Your task to perform on an android device: open app "The Home Depot" Image 0: 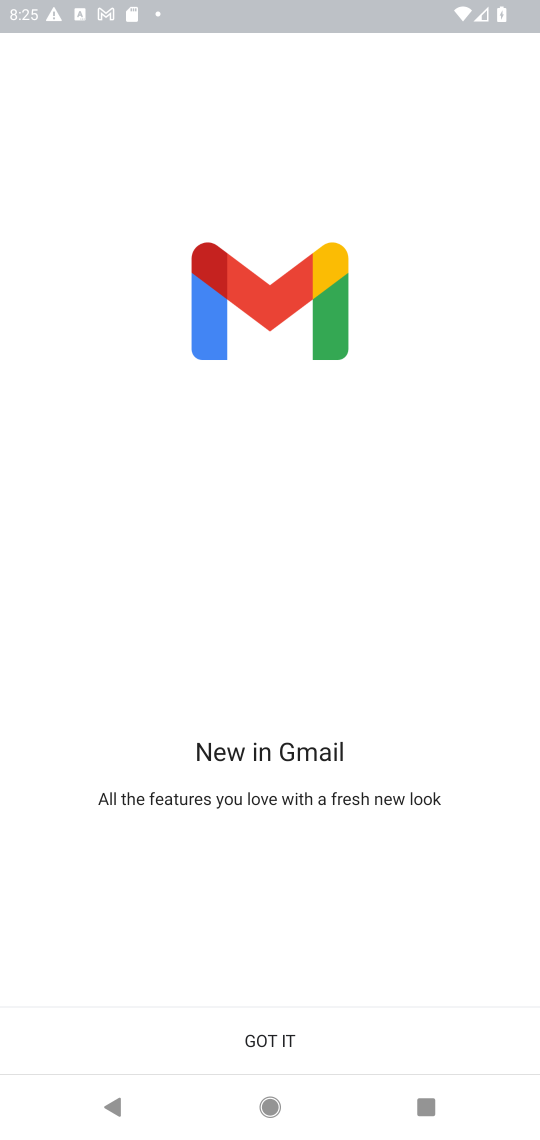
Step 0: press home button
Your task to perform on an android device: open app "The Home Depot" Image 1: 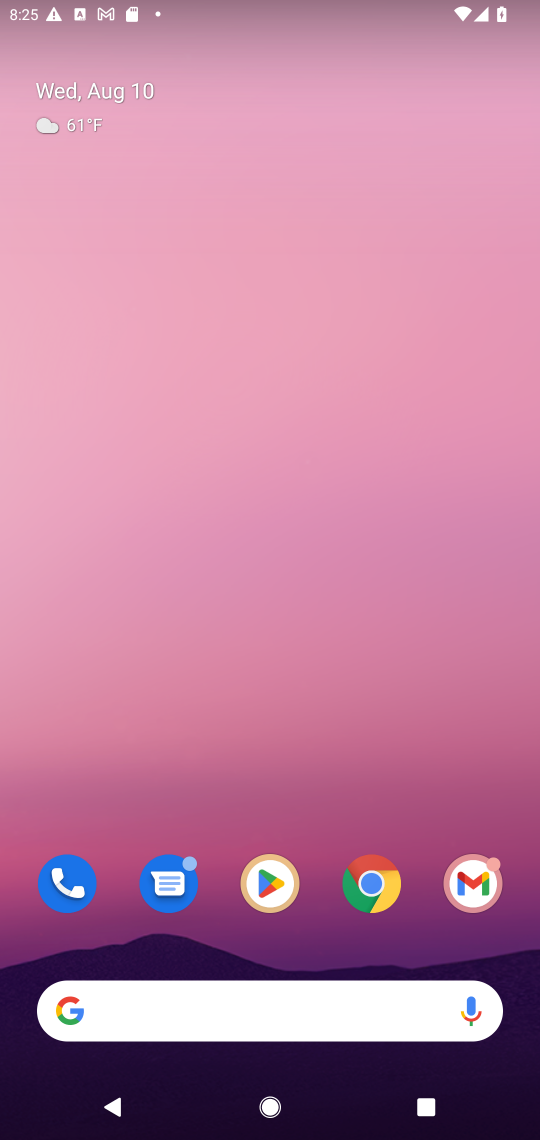
Step 1: click (263, 899)
Your task to perform on an android device: open app "The Home Depot" Image 2: 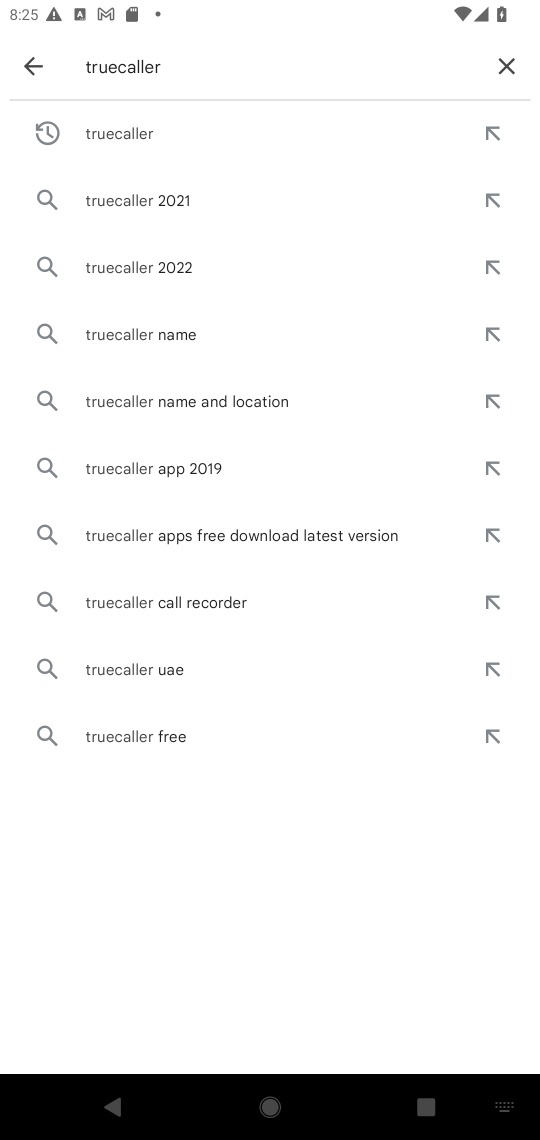
Step 2: click (507, 66)
Your task to perform on an android device: open app "The Home Depot" Image 3: 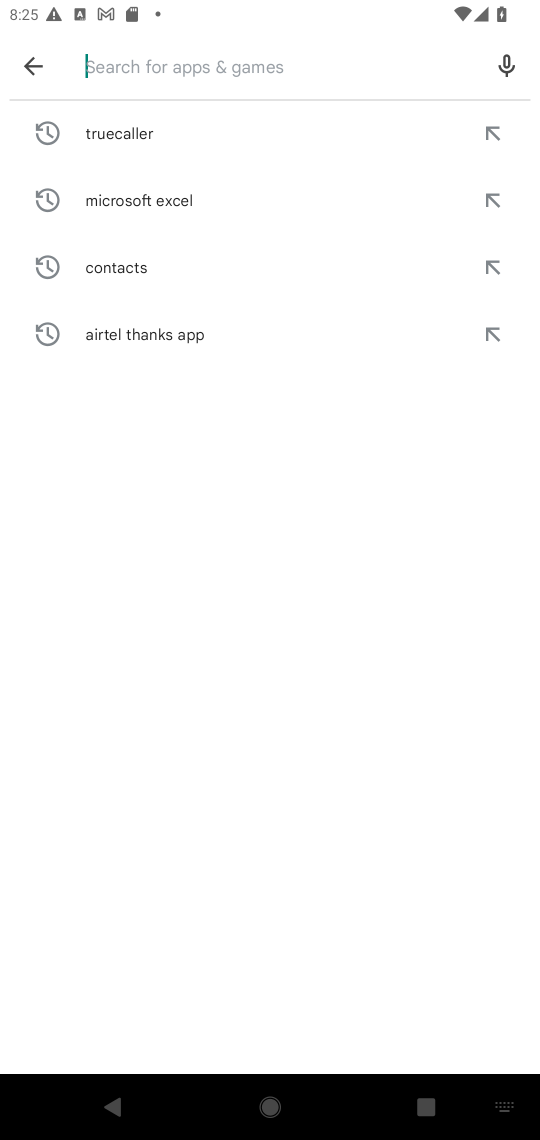
Step 3: type "The Home Depot"
Your task to perform on an android device: open app "The Home Depot" Image 4: 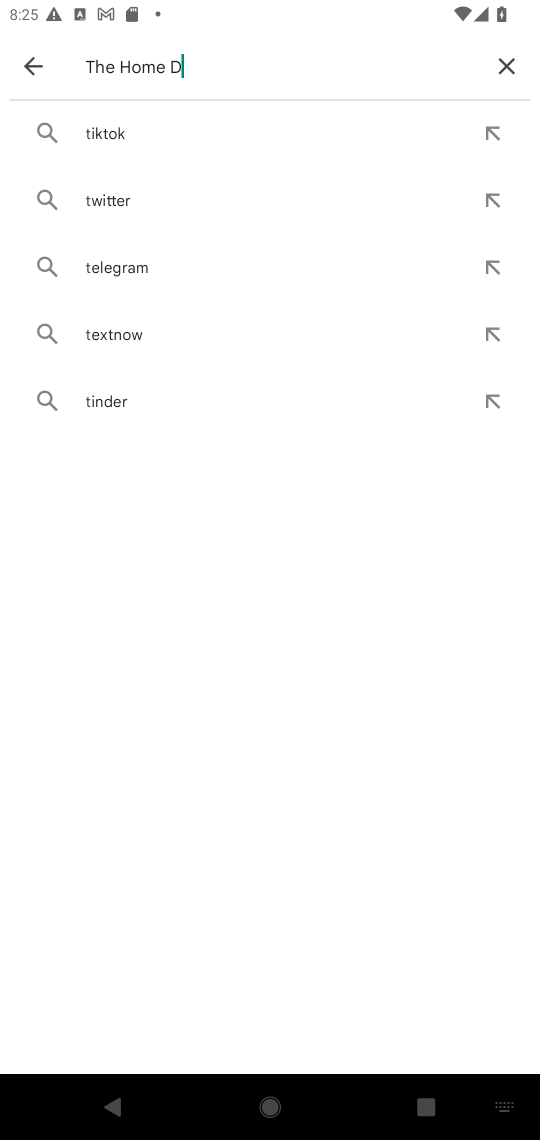
Step 4: type ""
Your task to perform on an android device: open app "The Home Depot" Image 5: 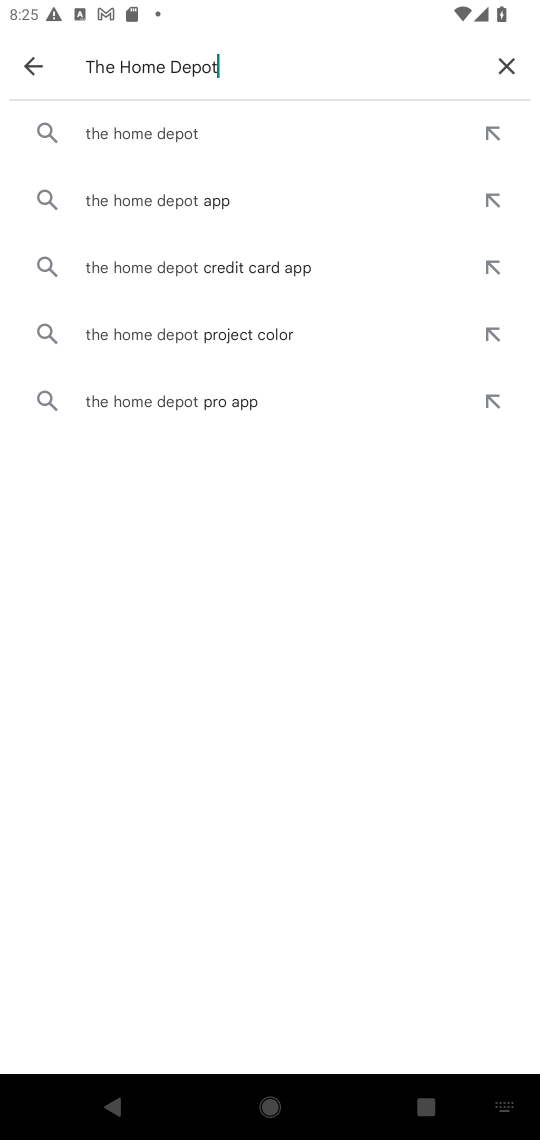
Step 5: click (208, 142)
Your task to perform on an android device: open app "The Home Depot" Image 6: 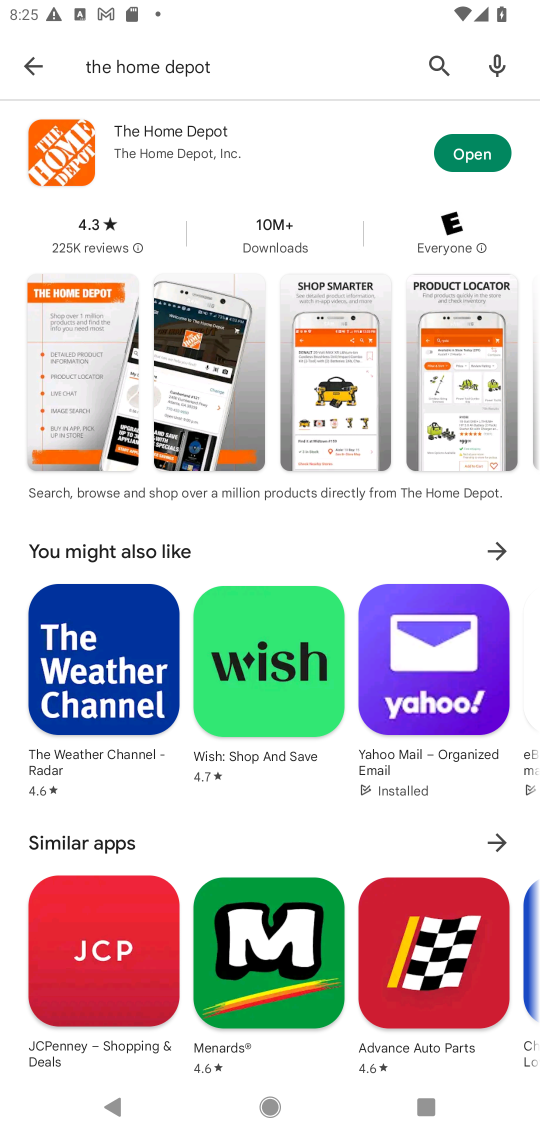
Step 6: click (483, 153)
Your task to perform on an android device: open app "The Home Depot" Image 7: 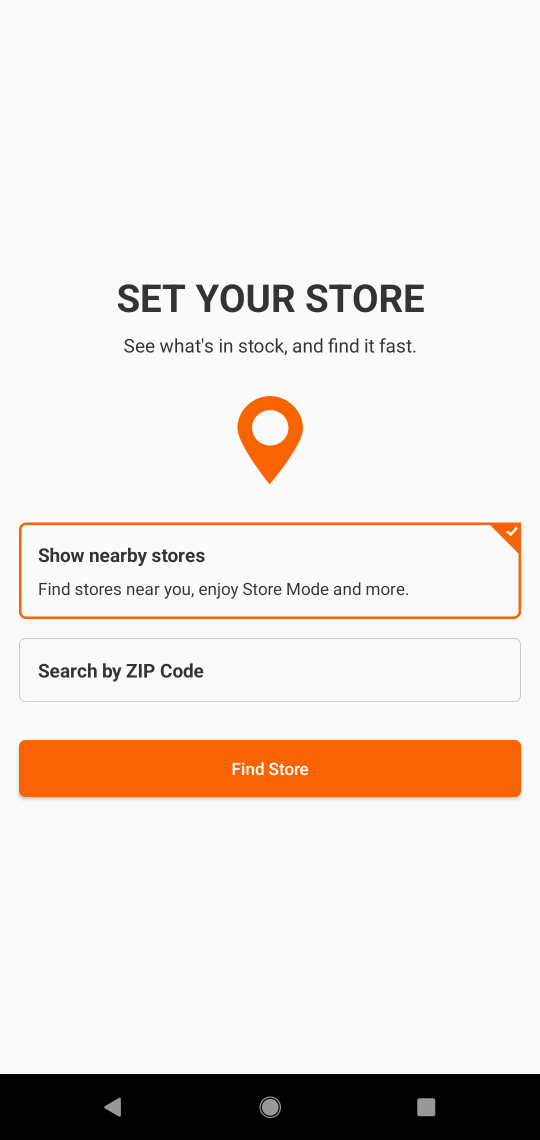
Step 7: task complete